Your task to perform on an android device: change keyboard looks Image 0: 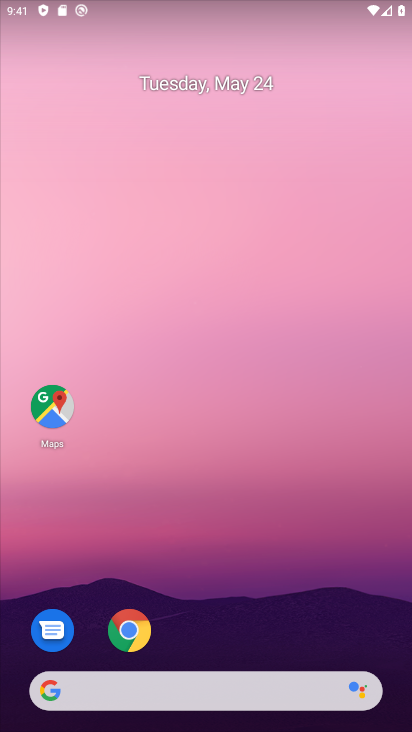
Step 0: drag from (224, 417) to (224, 125)
Your task to perform on an android device: change keyboard looks Image 1: 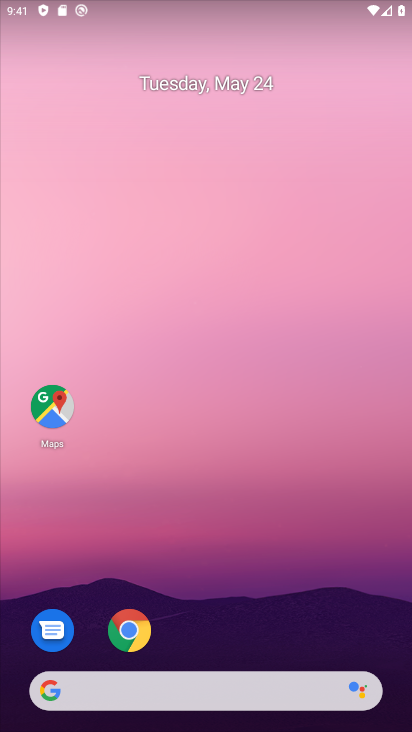
Step 1: drag from (215, 647) to (222, 29)
Your task to perform on an android device: change keyboard looks Image 2: 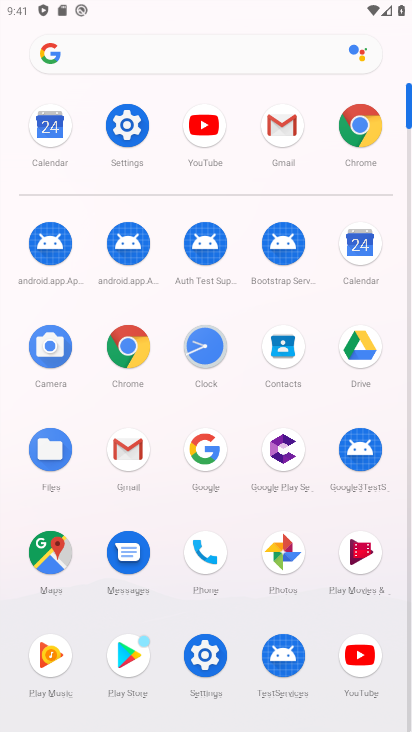
Step 2: click (131, 118)
Your task to perform on an android device: change keyboard looks Image 3: 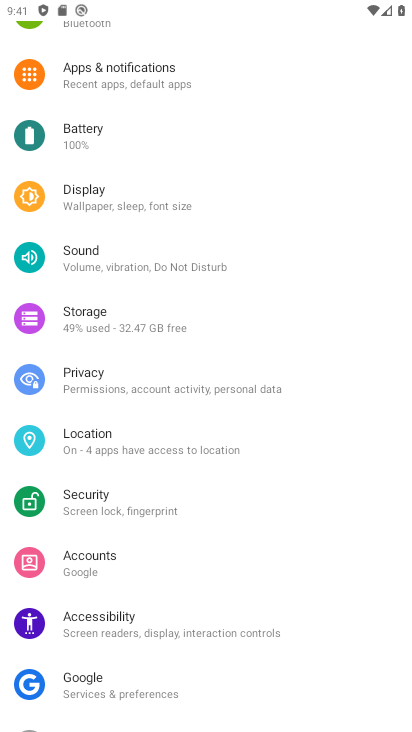
Step 3: drag from (147, 663) to (163, 195)
Your task to perform on an android device: change keyboard looks Image 4: 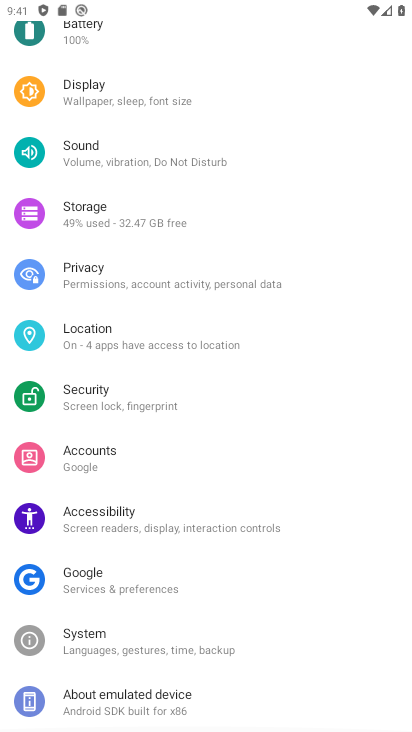
Step 4: click (130, 641)
Your task to perform on an android device: change keyboard looks Image 5: 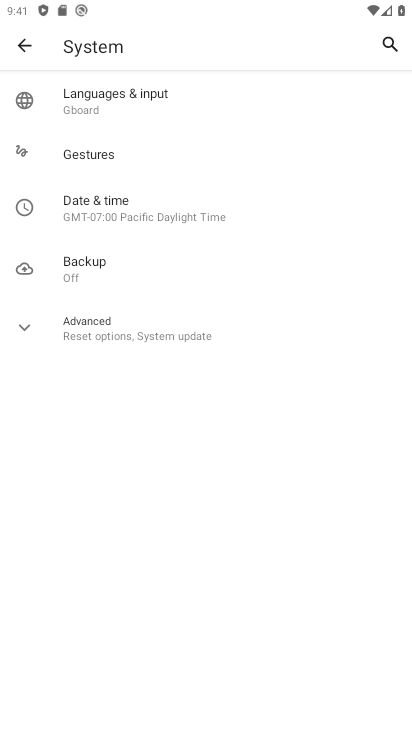
Step 5: click (72, 101)
Your task to perform on an android device: change keyboard looks Image 6: 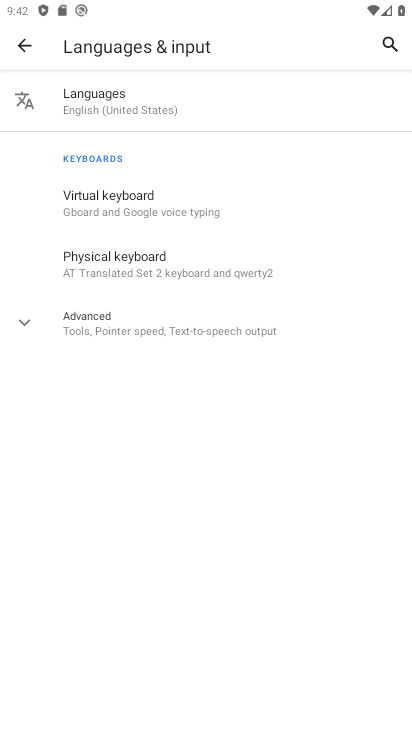
Step 6: click (122, 190)
Your task to perform on an android device: change keyboard looks Image 7: 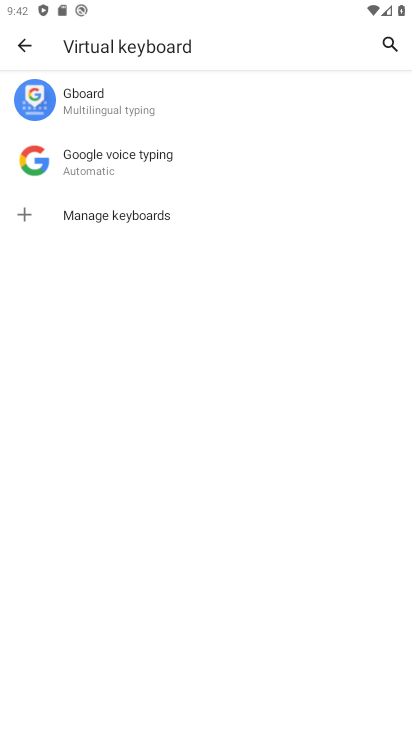
Step 7: click (105, 89)
Your task to perform on an android device: change keyboard looks Image 8: 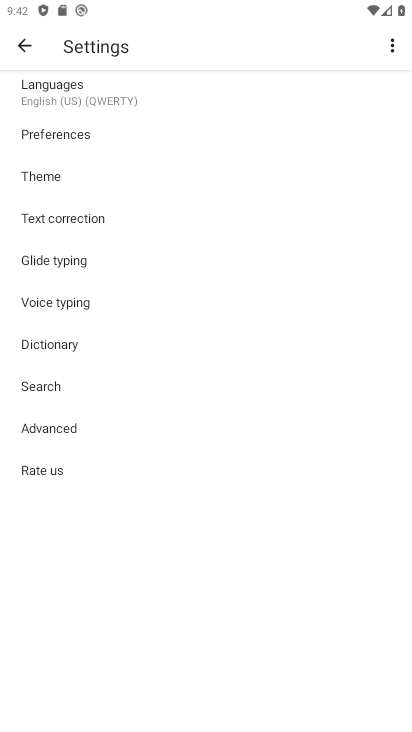
Step 8: click (81, 172)
Your task to perform on an android device: change keyboard looks Image 9: 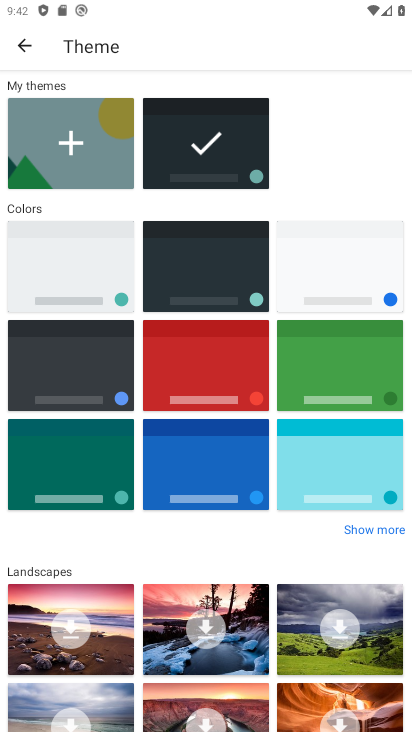
Step 9: click (51, 282)
Your task to perform on an android device: change keyboard looks Image 10: 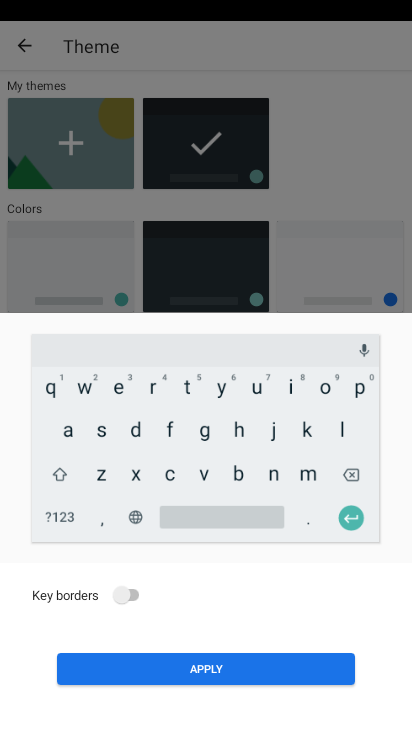
Step 10: click (204, 667)
Your task to perform on an android device: change keyboard looks Image 11: 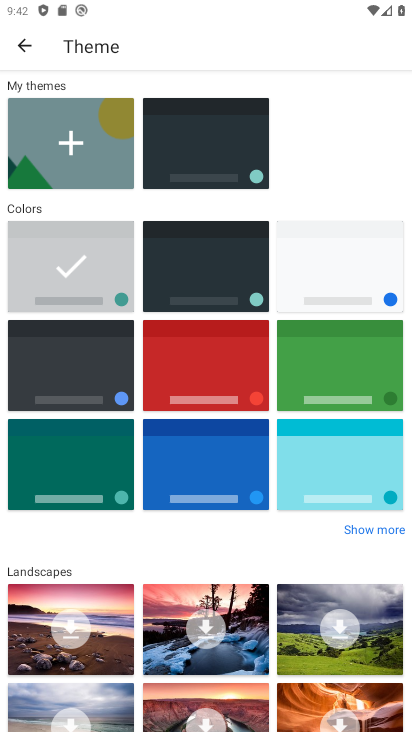
Step 11: task complete